Your task to perform on an android device: Open Amazon Image 0: 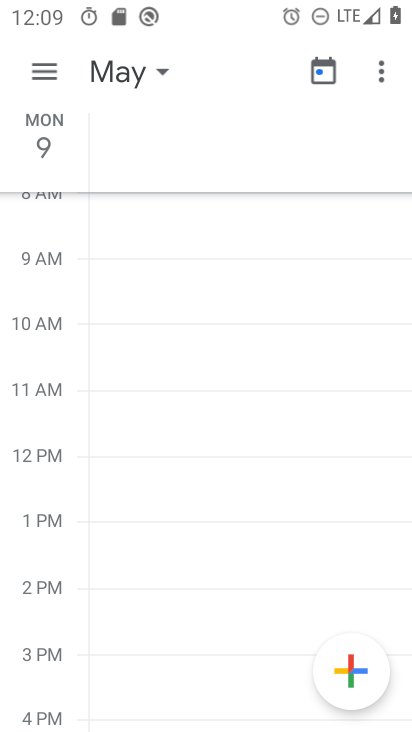
Step 0: press home button
Your task to perform on an android device: Open Amazon Image 1: 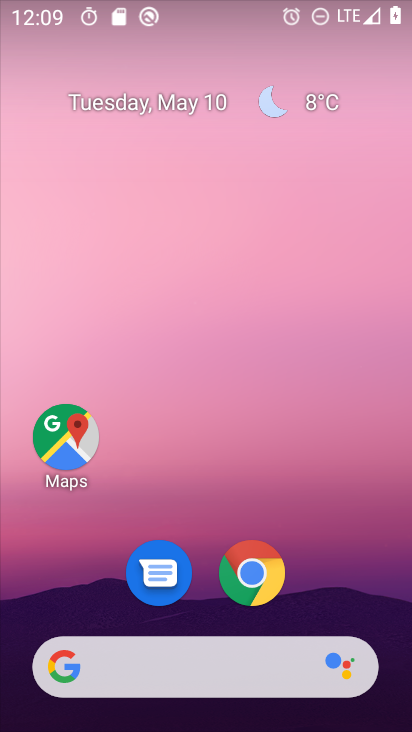
Step 1: click (257, 574)
Your task to perform on an android device: Open Amazon Image 2: 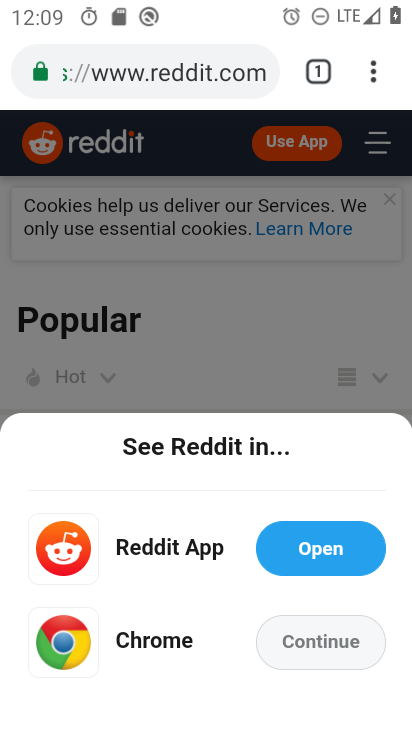
Step 2: click (207, 69)
Your task to perform on an android device: Open Amazon Image 3: 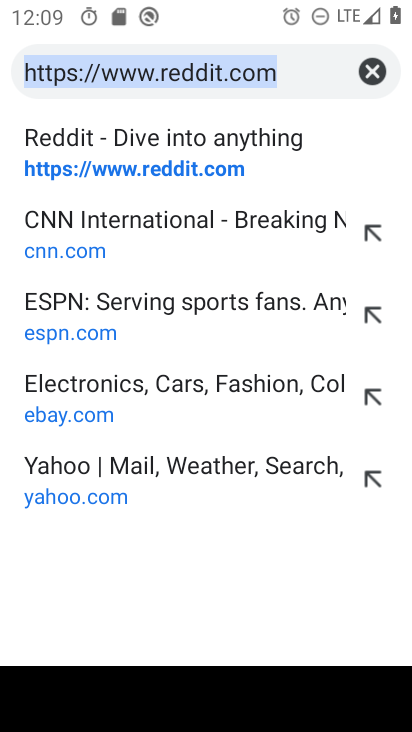
Step 3: type "amazon"
Your task to perform on an android device: Open Amazon Image 4: 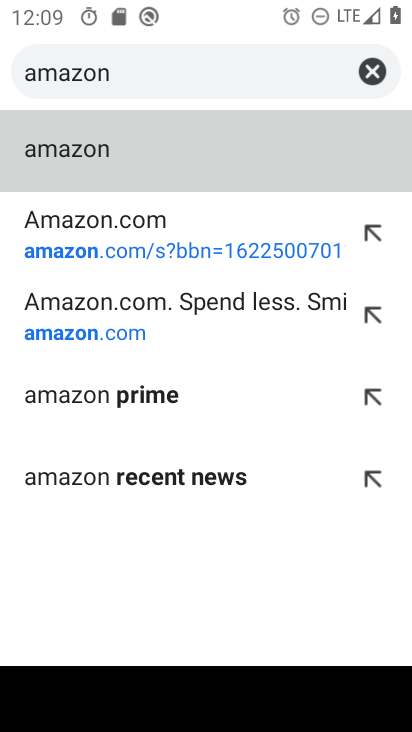
Step 4: click (81, 151)
Your task to perform on an android device: Open Amazon Image 5: 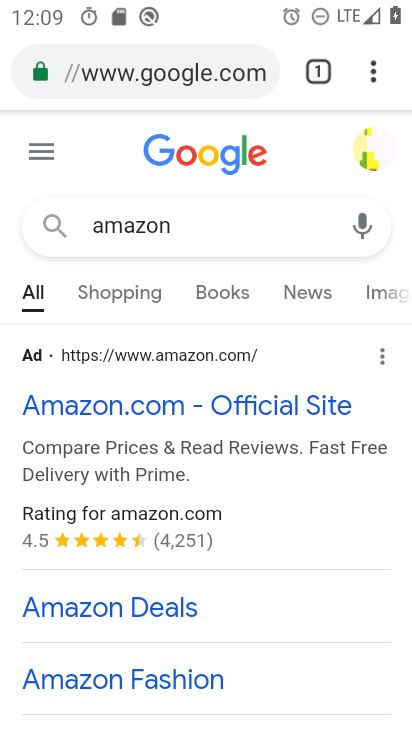
Step 5: drag from (231, 639) to (264, 56)
Your task to perform on an android device: Open Amazon Image 6: 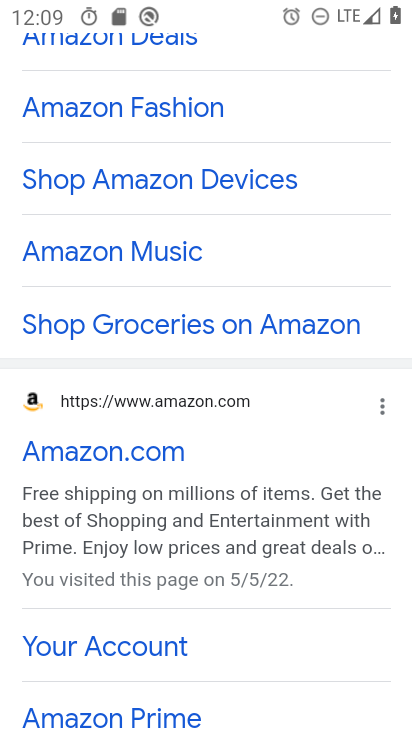
Step 6: click (110, 446)
Your task to perform on an android device: Open Amazon Image 7: 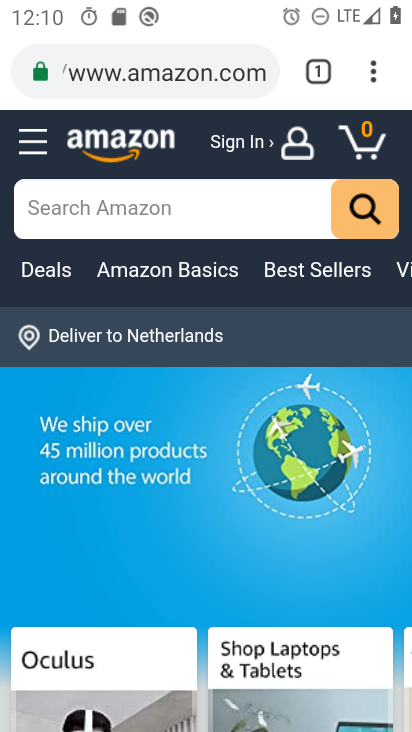
Step 7: task complete